Your task to perform on an android device: open app "Adobe Express: Graphic Design" (install if not already installed), go to login, and select forgot password Image 0: 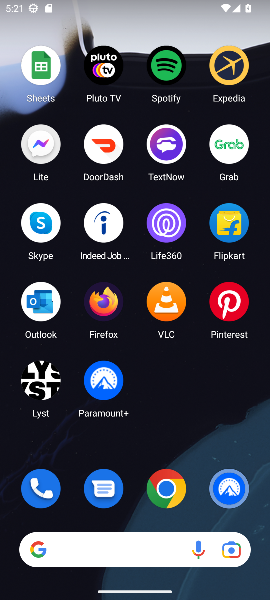
Step 0: press home button
Your task to perform on an android device: open app "Adobe Express: Graphic Design" (install if not already installed), go to login, and select forgot password Image 1: 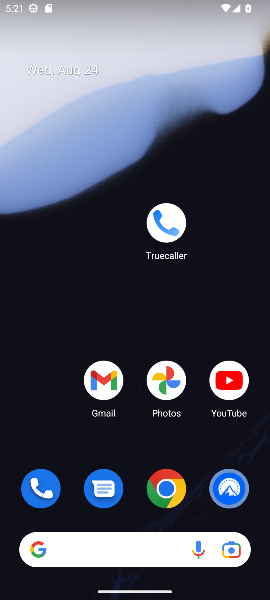
Step 1: drag from (128, 270) to (127, 137)
Your task to perform on an android device: open app "Adobe Express: Graphic Design" (install if not already installed), go to login, and select forgot password Image 2: 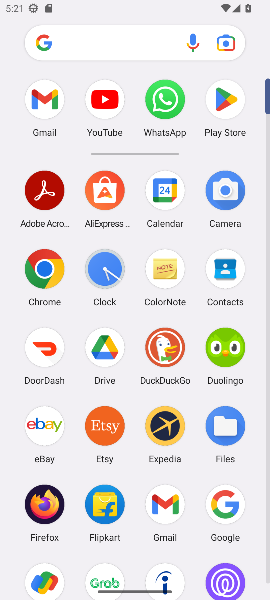
Step 2: click (56, 190)
Your task to perform on an android device: open app "Adobe Express: Graphic Design" (install if not already installed), go to login, and select forgot password Image 3: 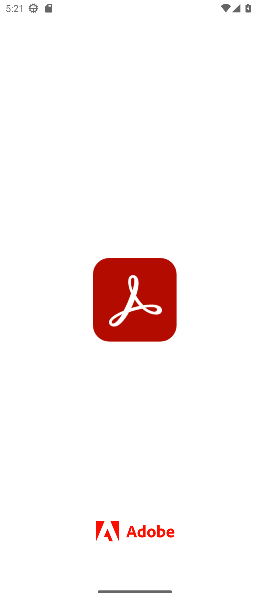
Step 3: task complete